Your task to perform on an android device: Go to sound settings Image 0: 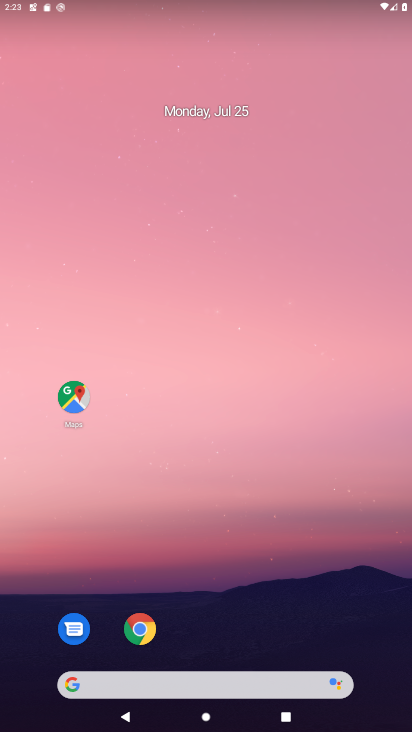
Step 0: drag from (306, 636) to (403, 125)
Your task to perform on an android device: Go to sound settings Image 1: 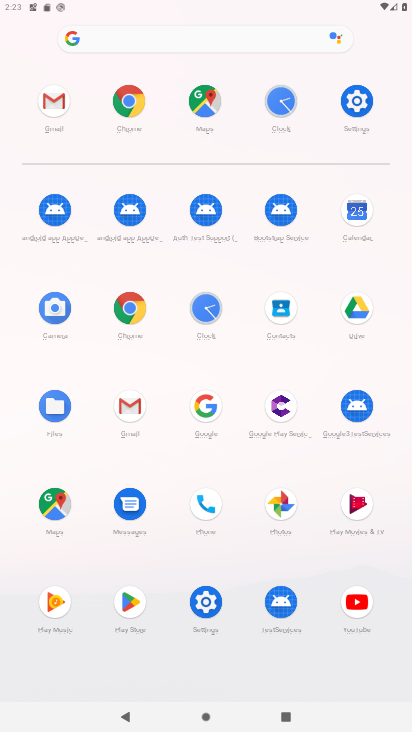
Step 1: click (358, 95)
Your task to perform on an android device: Go to sound settings Image 2: 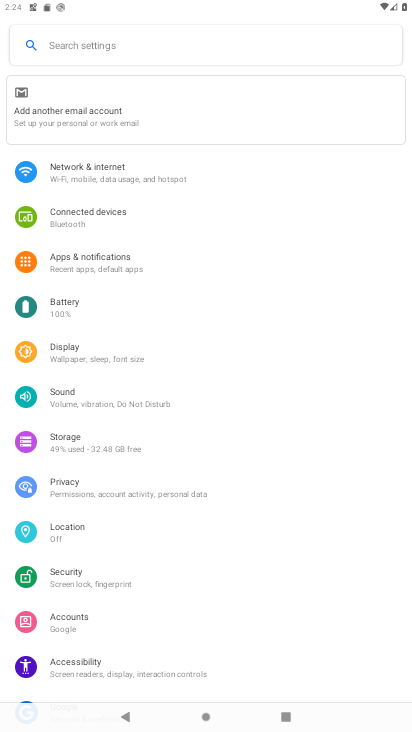
Step 2: click (89, 407)
Your task to perform on an android device: Go to sound settings Image 3: 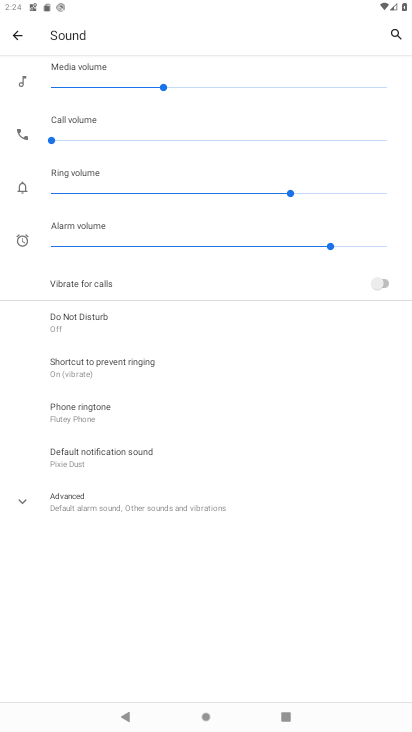
Step 3: task complete